Your task to perform on an android device: turn on javascript in the chrome app Image 0: 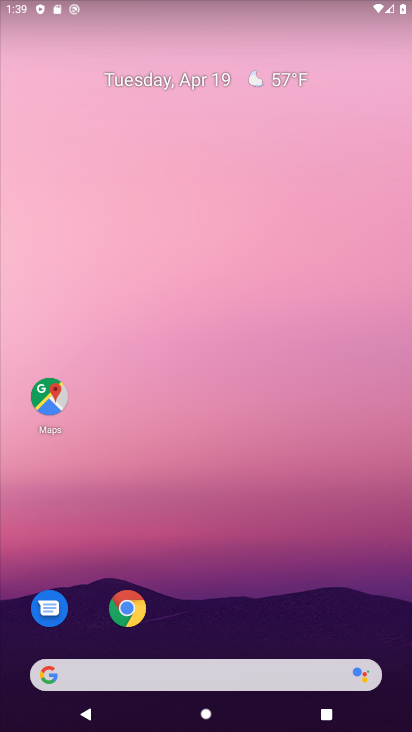
Step 0: click (131, 603)
Your task to perform on an android device: turn on javascript in the chrome app Image 1: 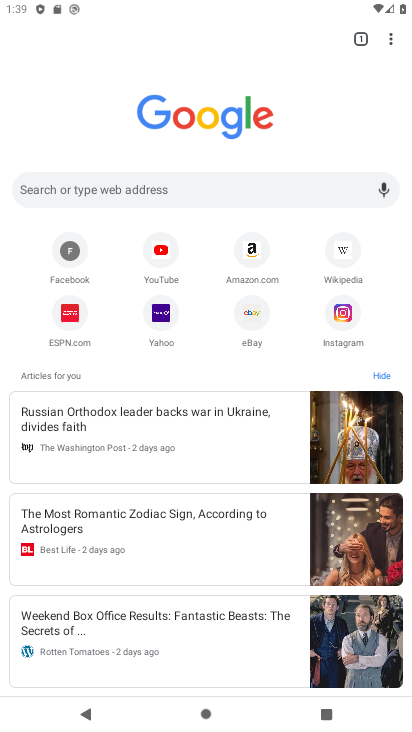
Step 1: click (389, 45)
Your task to perform on an android device: turn on javascript in the chrome app Image 2: 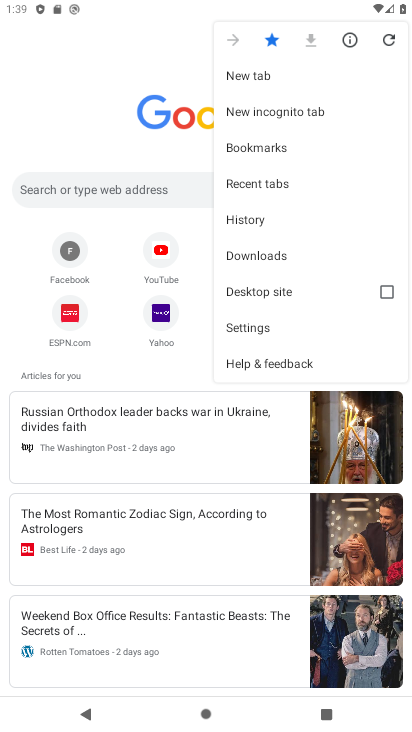
Step 2: click (267, 320)
Your task to perform on an android device: turn on javascript in the chrome app Image 3: 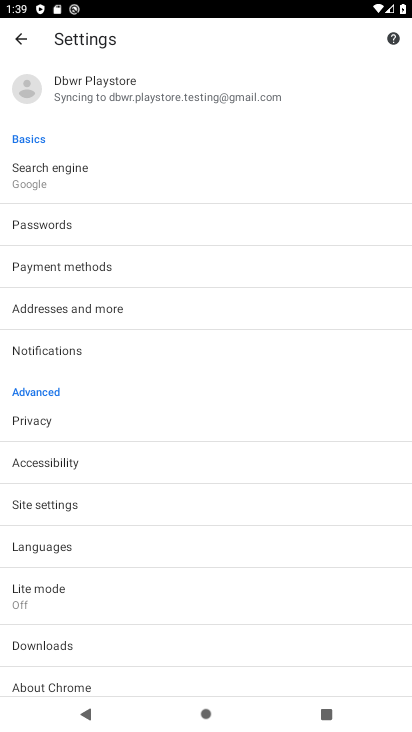
Step 3: click (76, 512)
Your task to perform on an android device: turn on javascript in the chrome app Image 4: 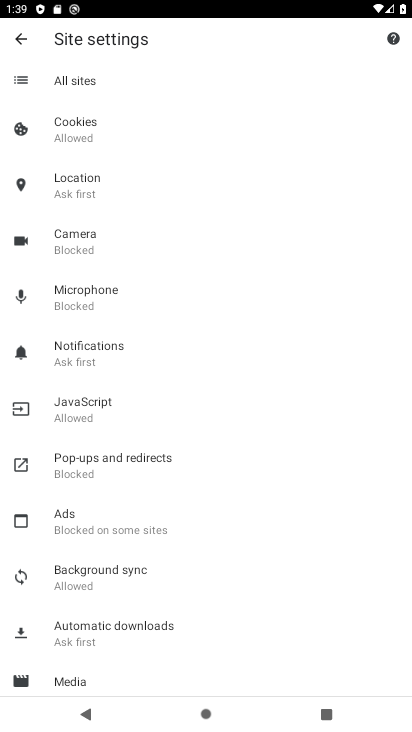
Step 4: click (143, 411)
Your task to perform on an android device: turn on javascript in the chrome app Image 5: 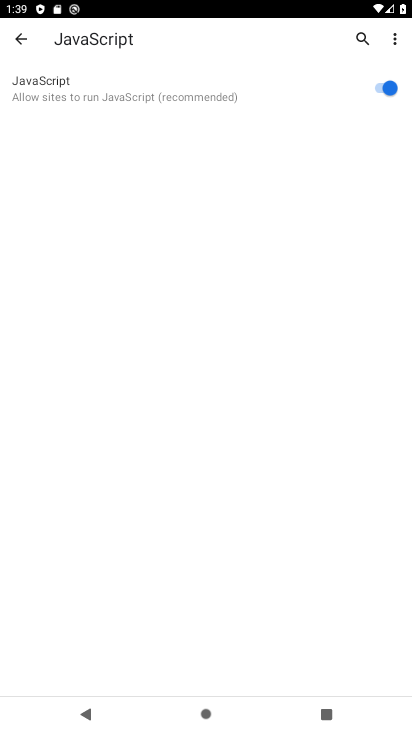
Step 5: task complete